Your task to perform on an android device: Open network settings Image 0: 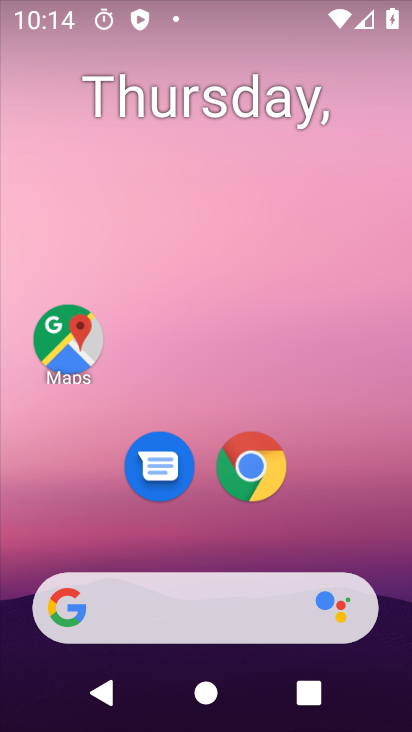
Step 0: drag from (201, 570) to (315, 45)
Your task to perform on an android device: Open network settings Image 1: 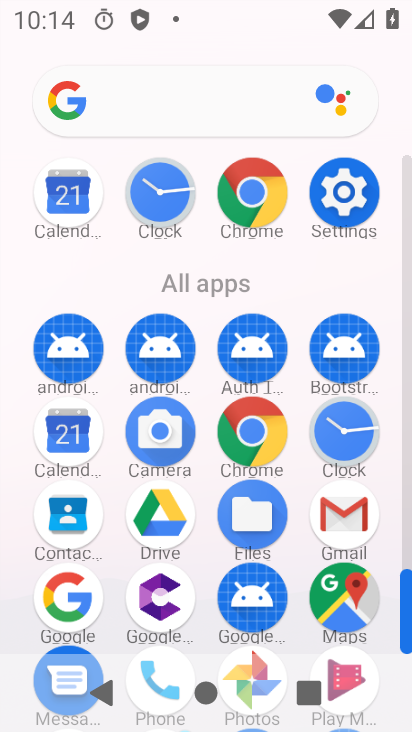
Step 1: click (350, 197)
Your task to perform on an android device: Open network settings Image 2: 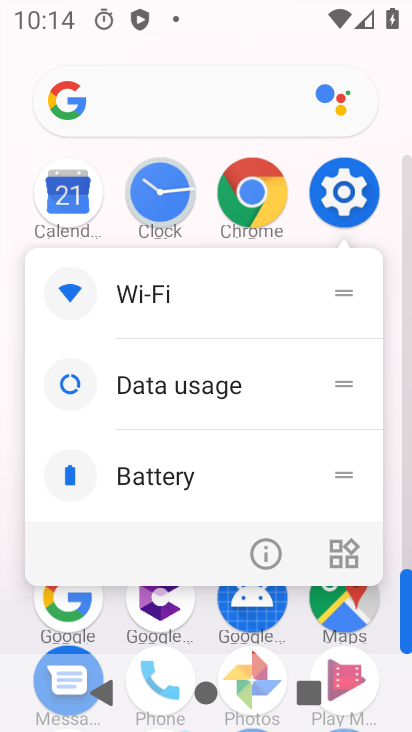
Step 2: click (339, 194)
Your task to perform on an android device: Open network settings Image 3: 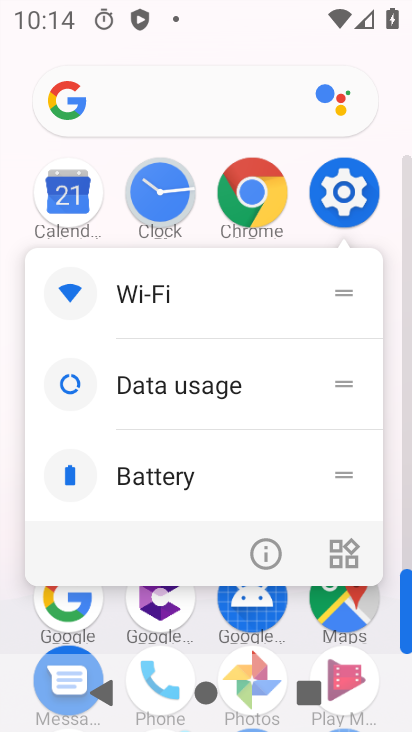
Step 3: click (345, 202)
Your task to perform on an android device: Open network settings Image 4: 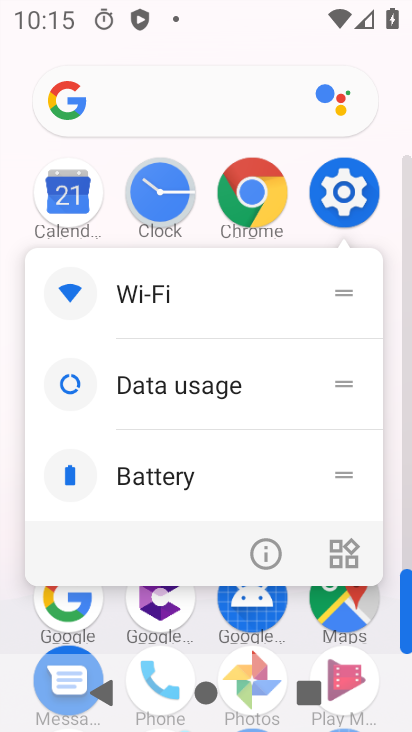
Step 4: click (342, 192)
Your task to perform on an android device: Open network settings Image 5: 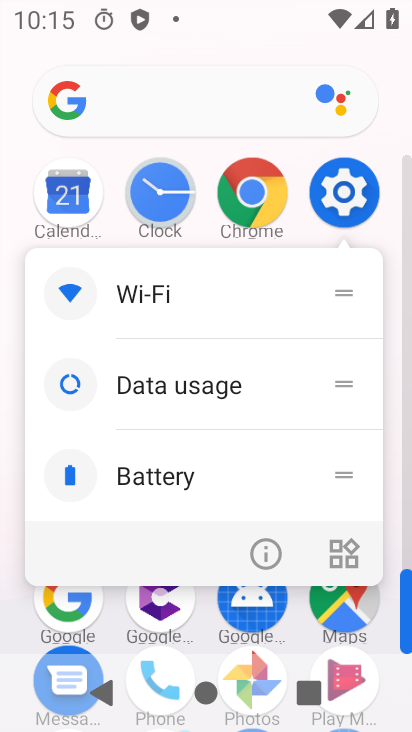
Step 5: click (337, 201)
Your task to perform on an android device: Open network settings Image 6: 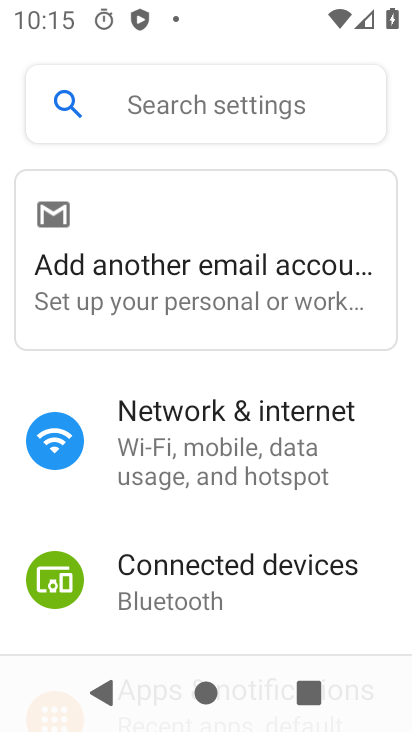
Step 6: click (209, 398)
Your task to perform on an android device: Open network settings Image 7: 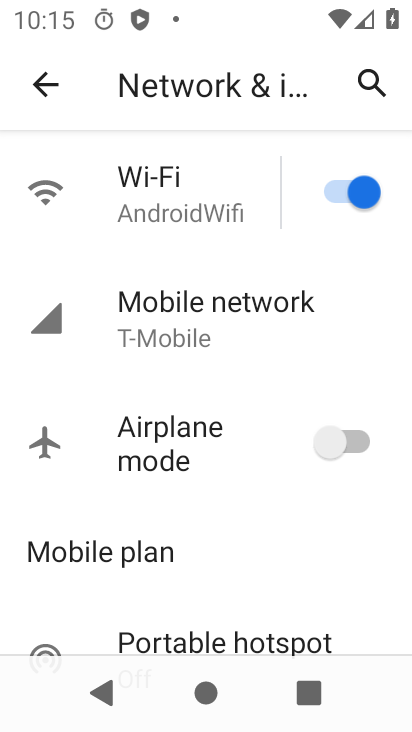
Step 7: task complete